Your task to perform on an android device: Show the shopping cart on bestbuy. Search for "razer huntsman" on bestbuy, select the first entry, add it to the cart, then select checkout. Image 0: 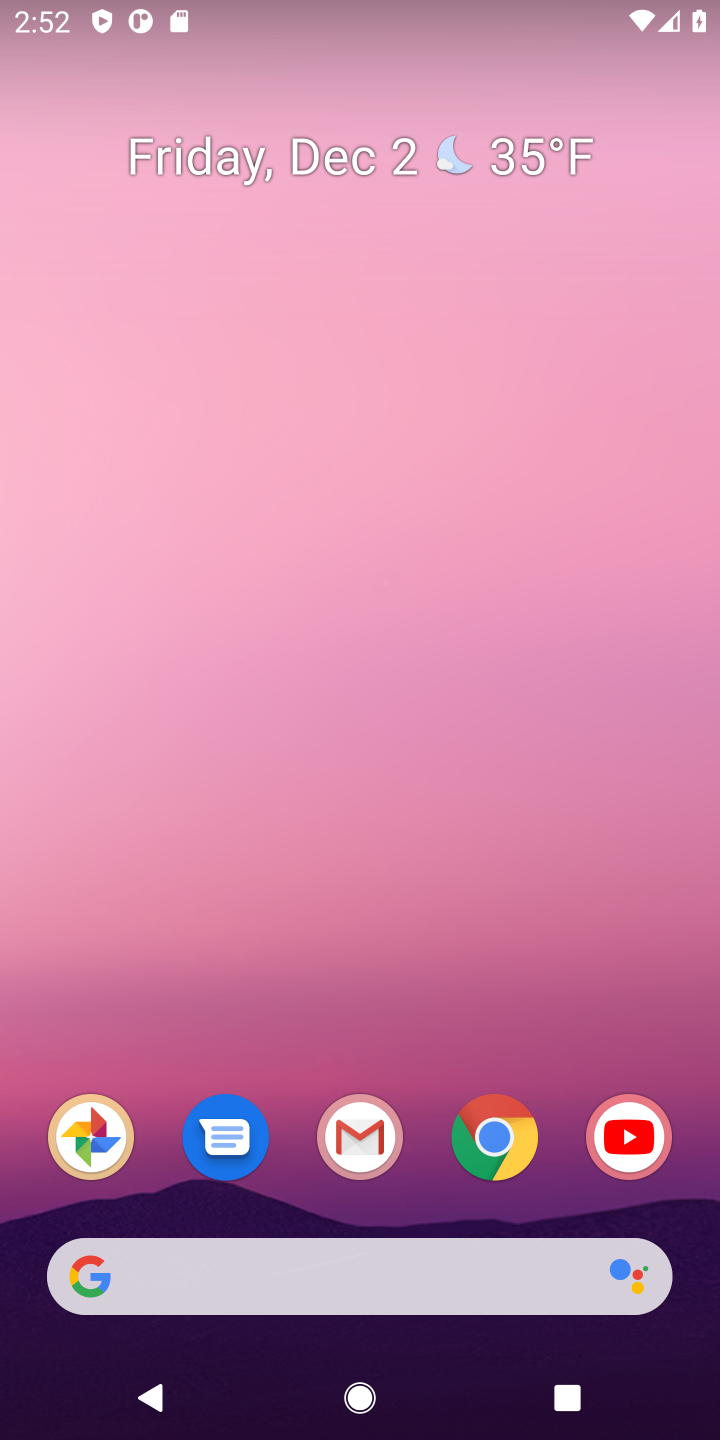
Step 0: drag from (354, 752) to (322, 500)
Your task to perform on an android device: Show the shopping cart on bestbuy. Search for "razer huntsman" on bestbuy, select the first entry, add it to the cart, then select checkout. Image 1: 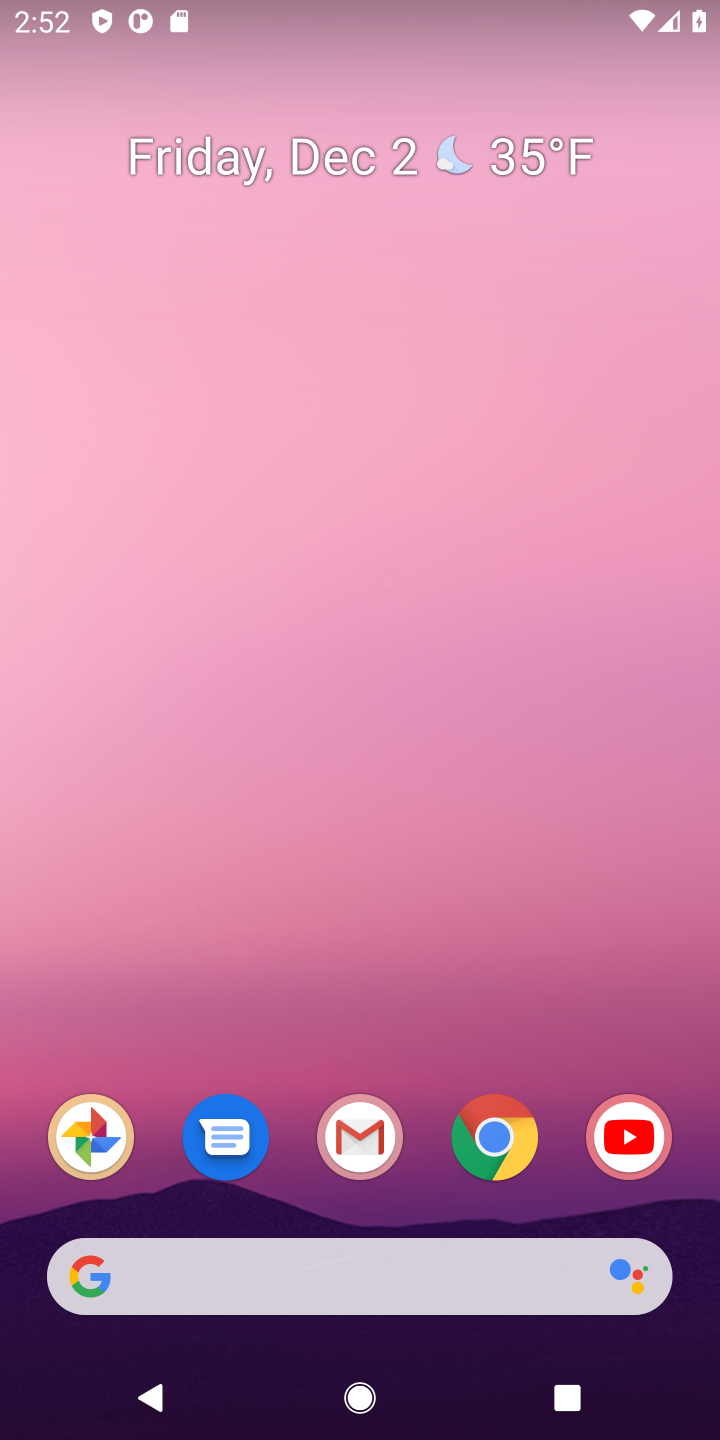
Step 1: drag from (228, 1116) to (218, 402)
Your task to perform on an android device: Show the shopping cart on bestbuy. Search for "razer huntsman" on bestbuy, select the first entry, add it to the cart, then select checkout. Image 2: 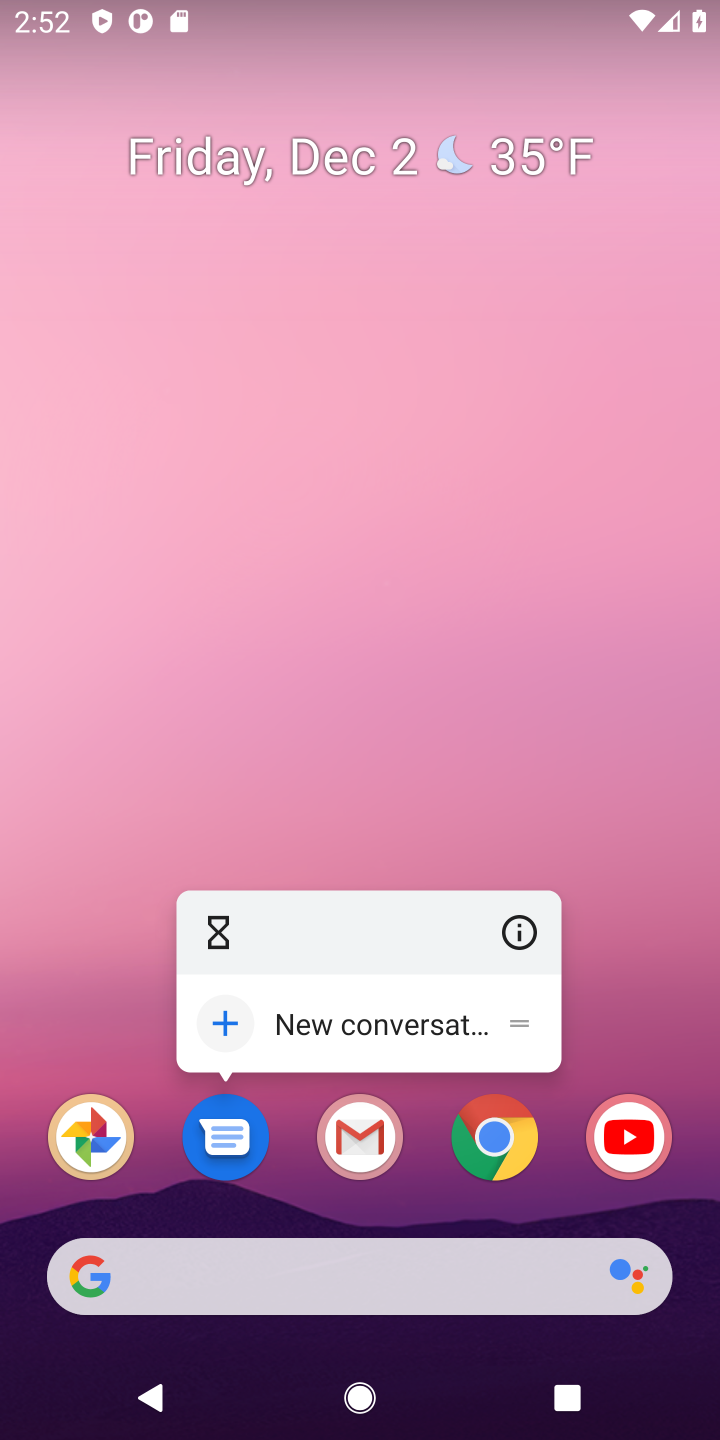
Step 2: drag from (151, 1238) to (158, 467)
Your task to perform on an android device: Show the shopping cart on bestbuy. Search for "razer huntsman" on bestbuy, select the first entry, add it to the cart, then select checkout. Image 3: 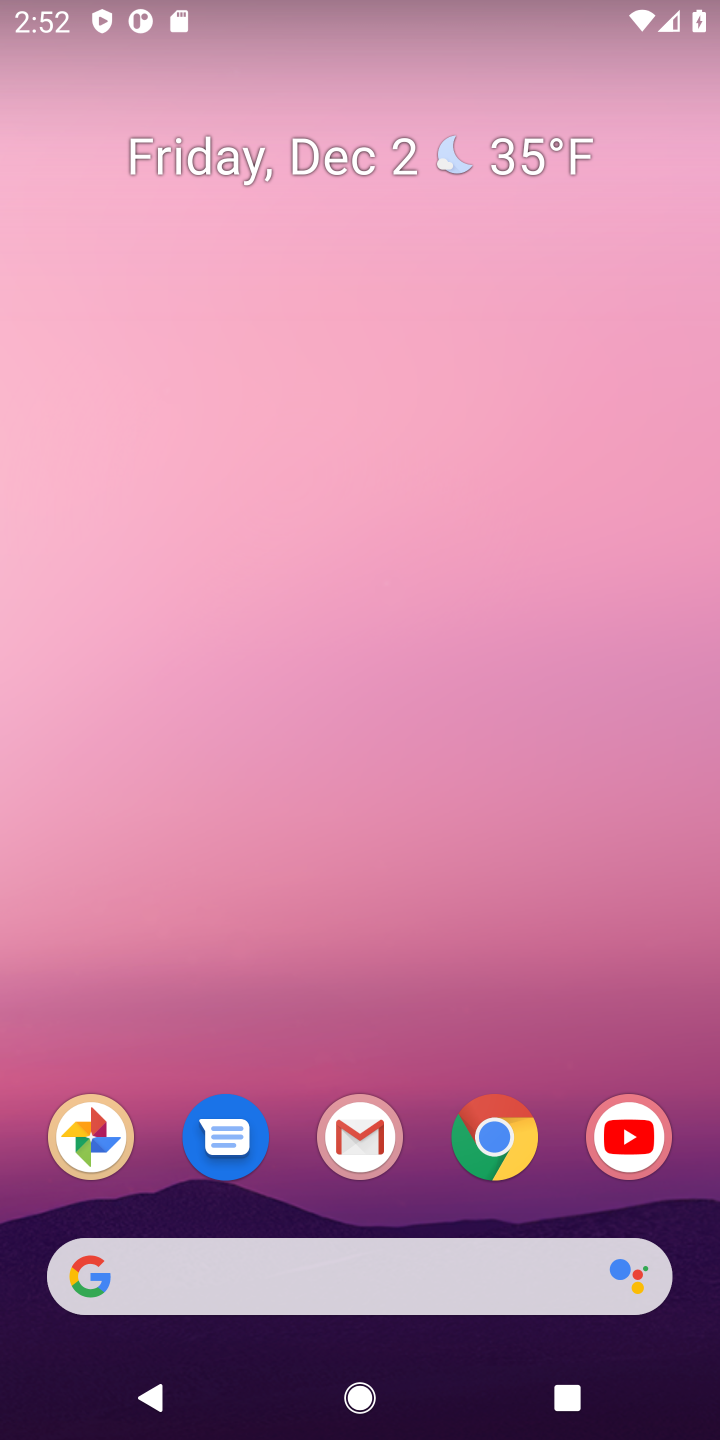
Step 3: drag from (332, 1169) to (284, 430)
Your task to perform on an android device: Show the shopping cart on bestbuy. Search for "razer huntsman" on bestbuy, select the first entry, add it to the cart, then select checkout. Image 4: 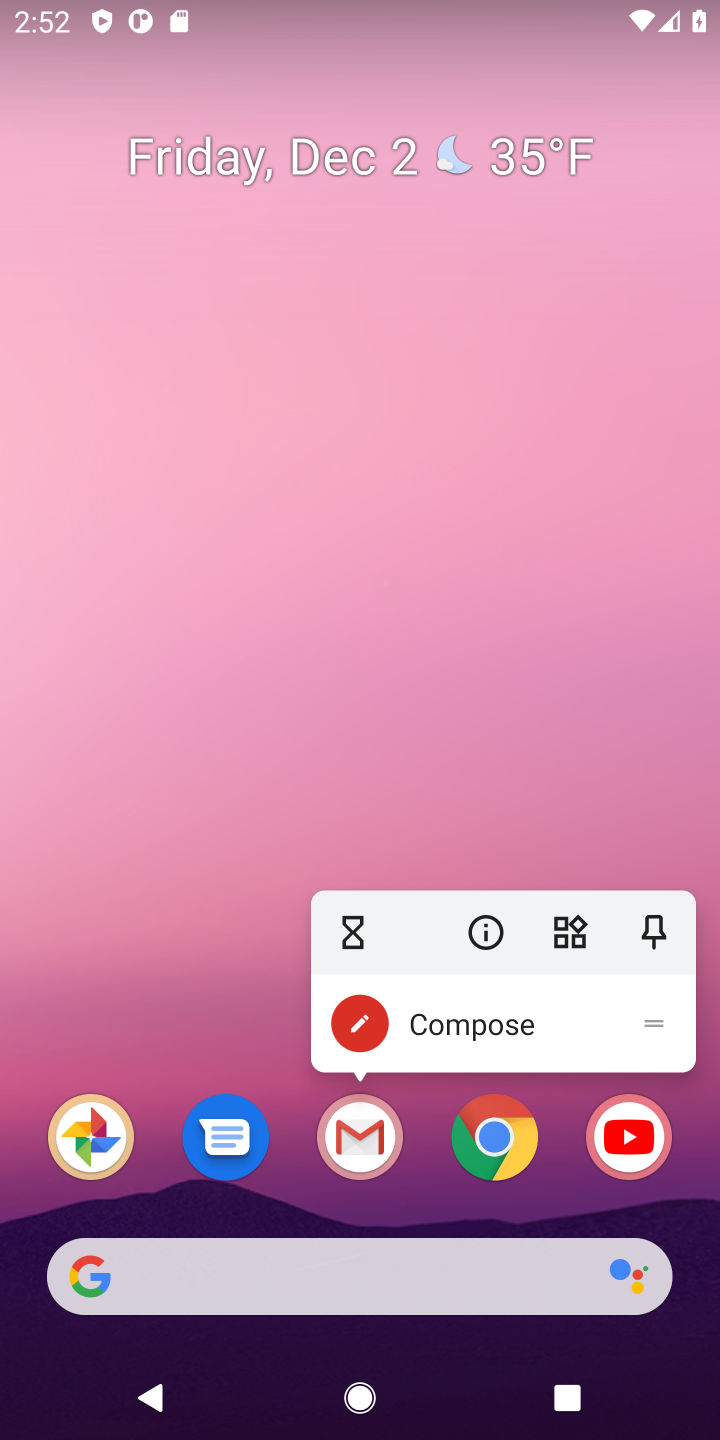
Step 4: drag from (209, 1271) to (216, 536)
Your task to perform on an android device: Show the shopping cart on bestbuy. Search for "razer huntsman" on bestbuy, select the first entry, add it to the cart, then select checkout. Image 5: 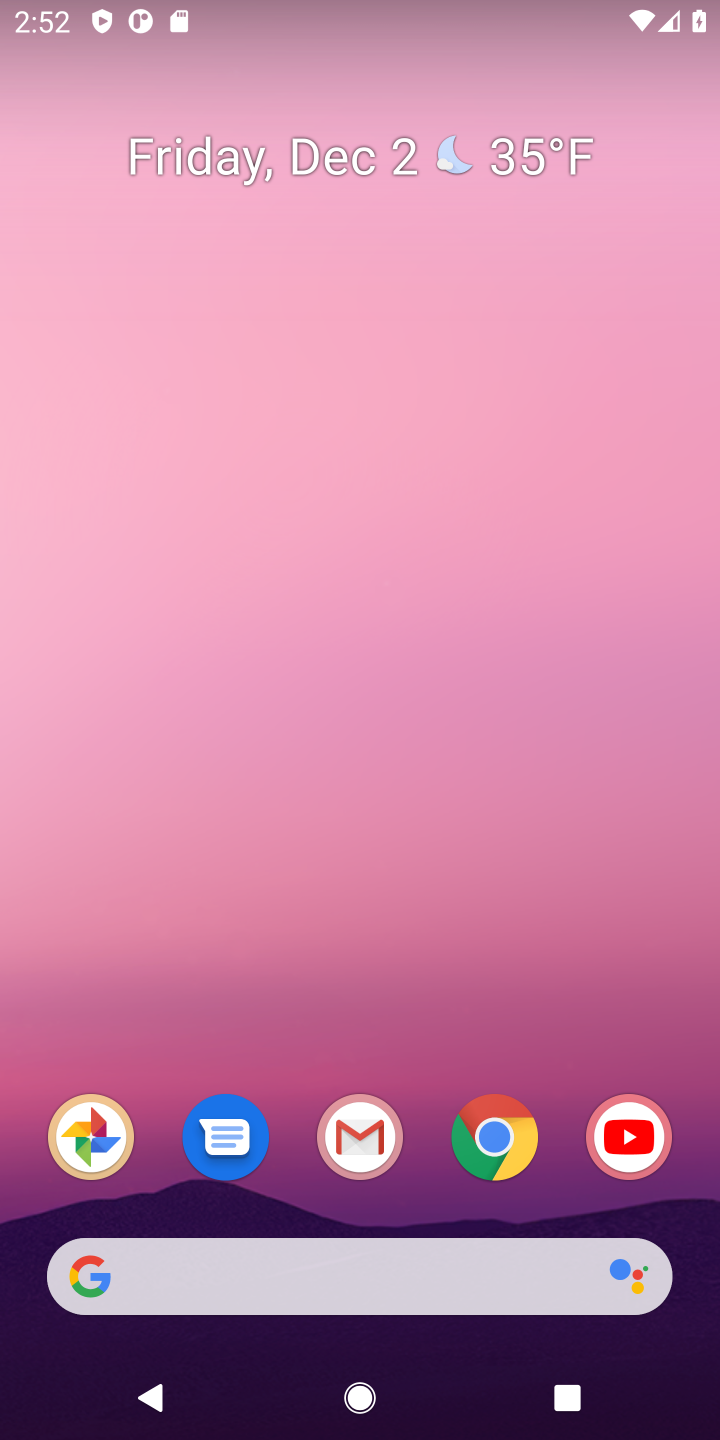
Step 5: drag from (412, 1251) to (417, 231)
Your task to perform on an android device: Show the shopping cart on bestbuy. Search for "razer huntsman" on bestbuy, select the first entry, add it to the cart, then select checkout. Image 6: 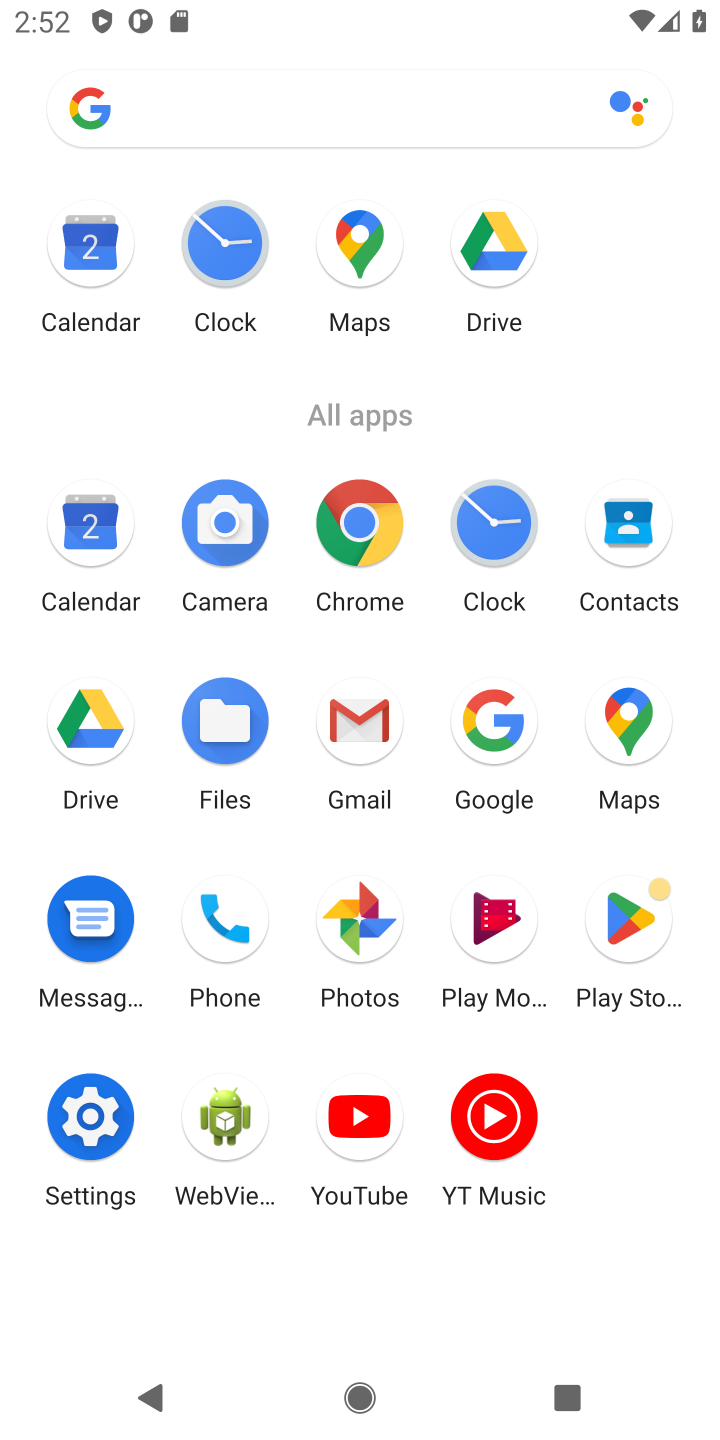
Step 6: click (491, 731)
Your task to perform on an android device: Show the shopping cart on bestbuy. Search for "razer huntsman" on bestbuy, select the first entry, add it to the cart, then select checkout. Image 7: 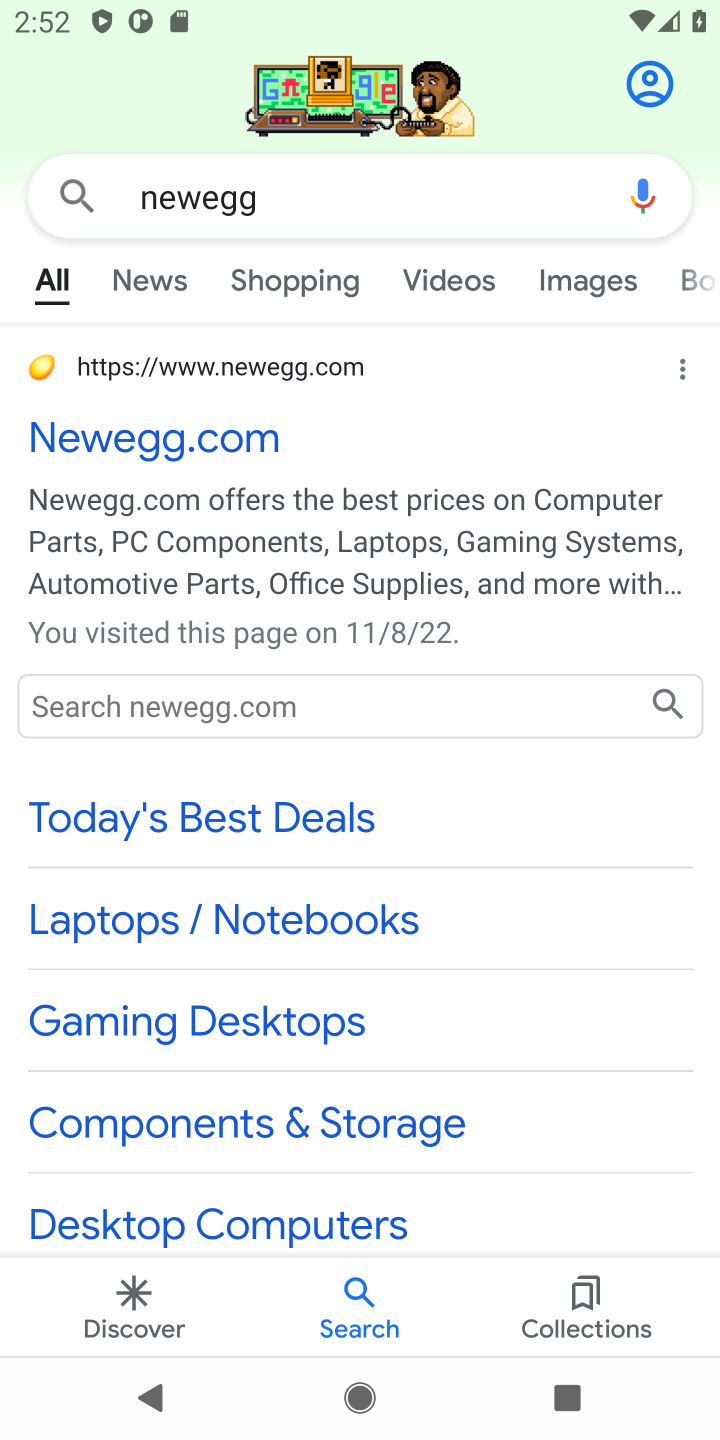
Step 7: click (241, 184)
Your task to perform on an android device: Show the shopping cart on bestbuy. Search for "razer huntsman" on bestbuy, select the first entry, add it to the cart, then select checkout. Image 8: 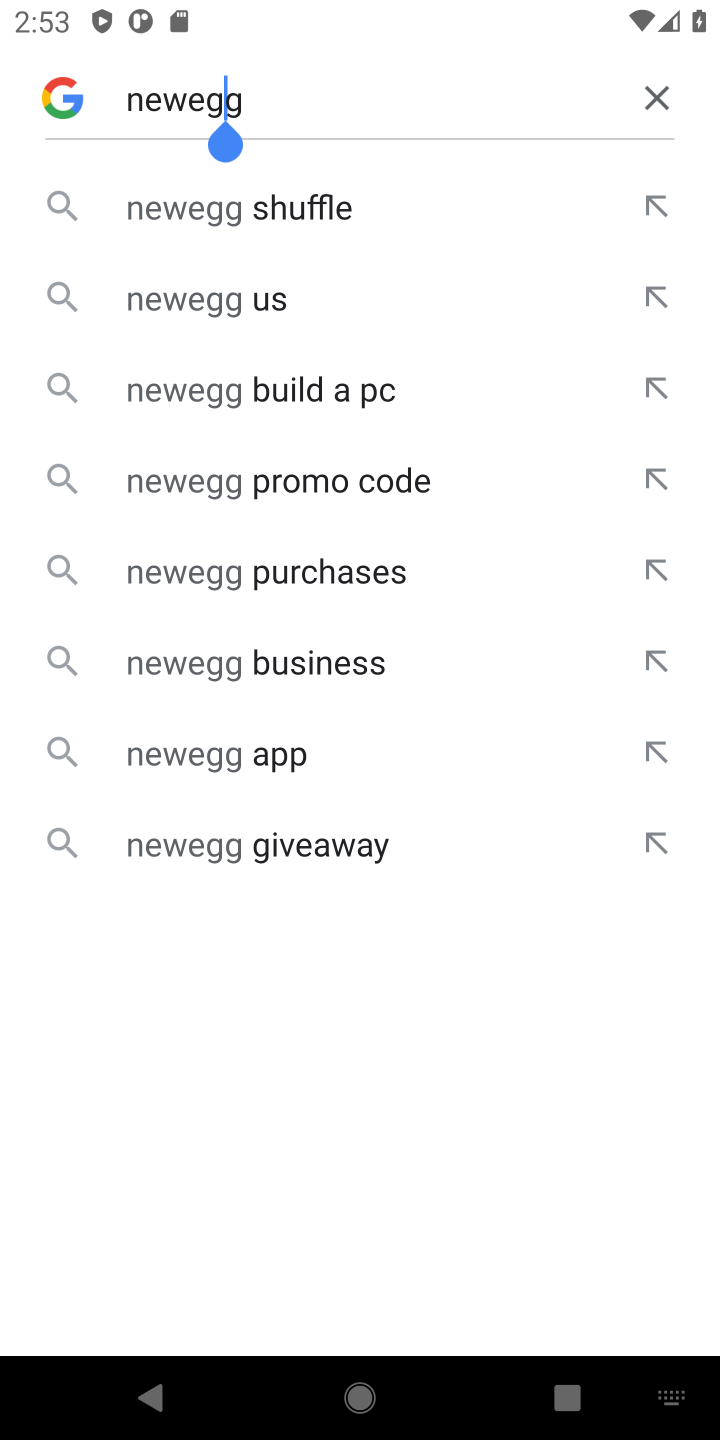
Step 8: click (661, 92)
Your task to perform on an android device: Show the shopping cart on bestbuy. Search for "razer huntsman" on bestbuy, select the first entry, add it to the cart, then select checkout. Image 9: 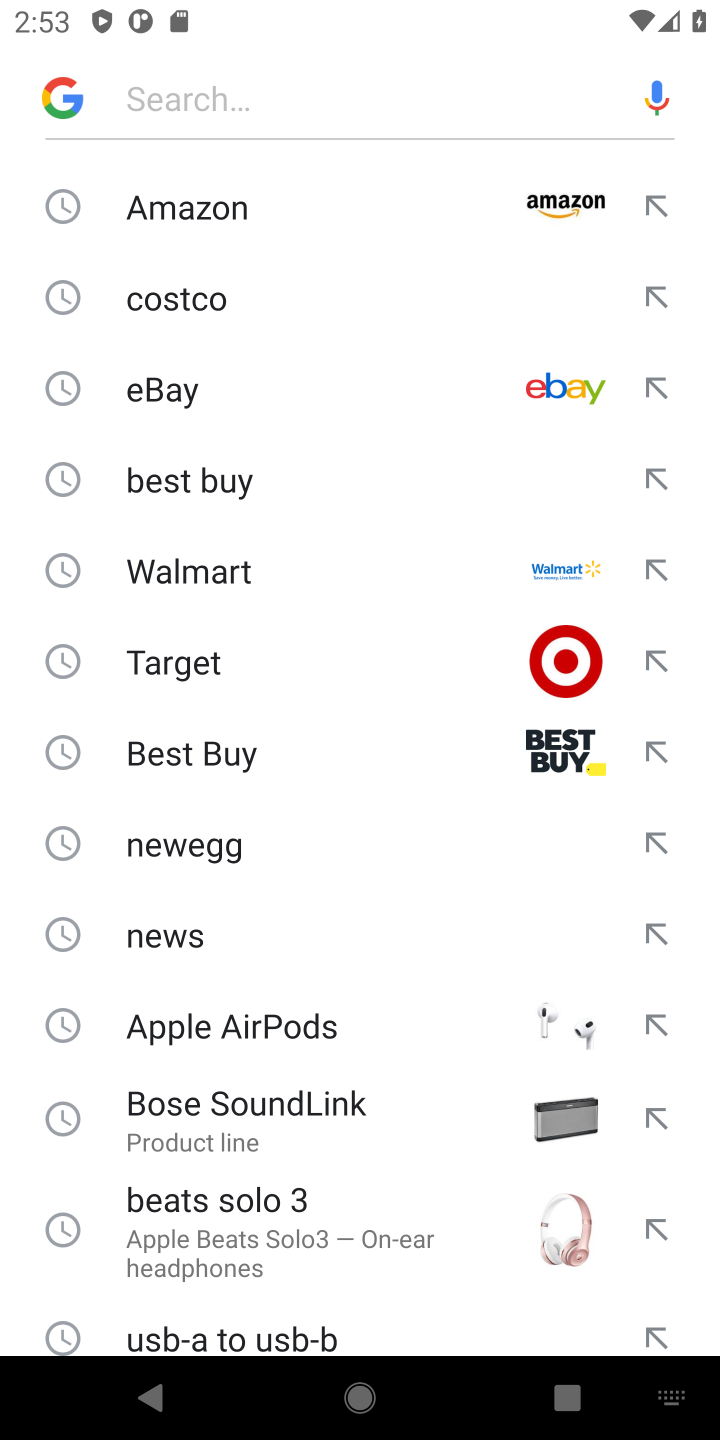
Step 9: click (142, 750)
Your task to perform on an android device: Show the shopping cart on bestbuy. Search for "razer huntsman" on bestbuy, select the first entry, add it to the cart, then select checkout. Image 10: 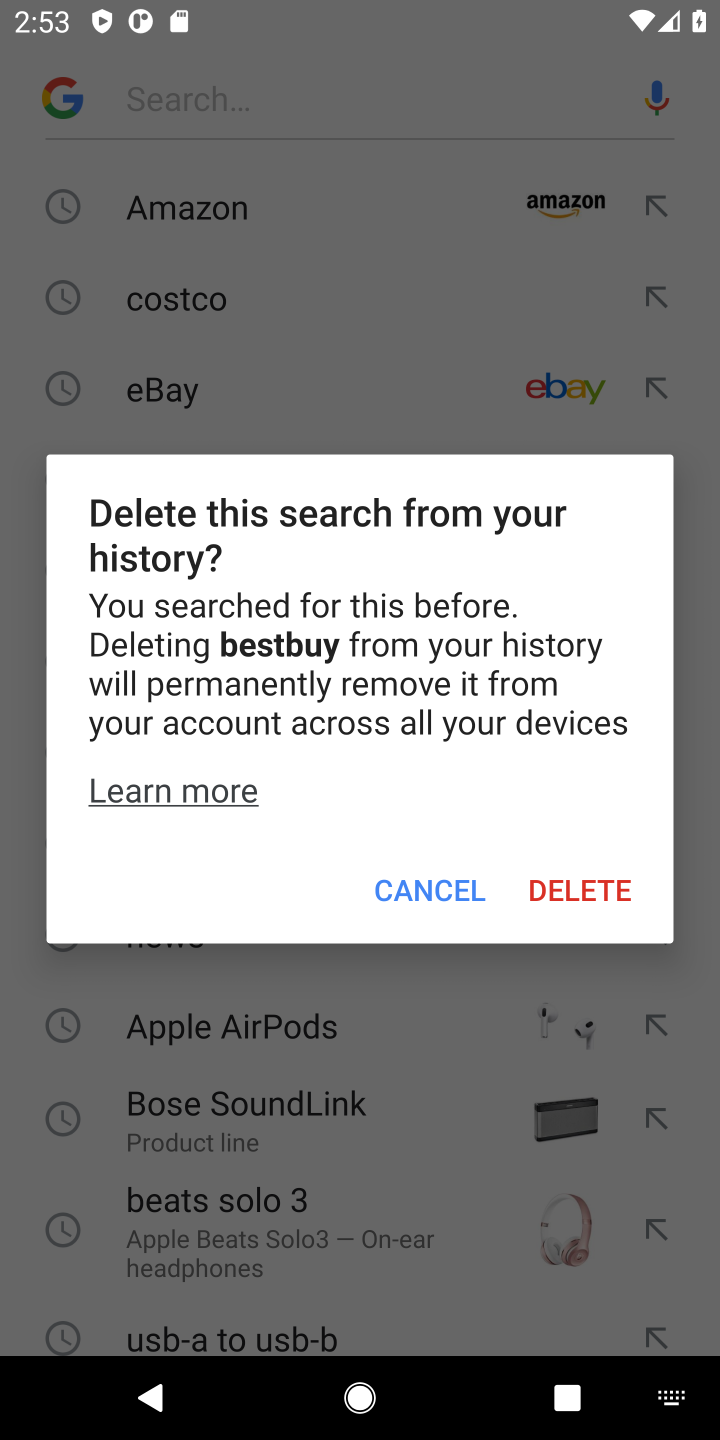
Step 10: click (397, 884)
Your task to perform on an android device: Show the shopping cart on bestbuy. Search for "razer huntsman" on bestbuy, select the first entry, add it to the cart, then select checkout. Image 11: 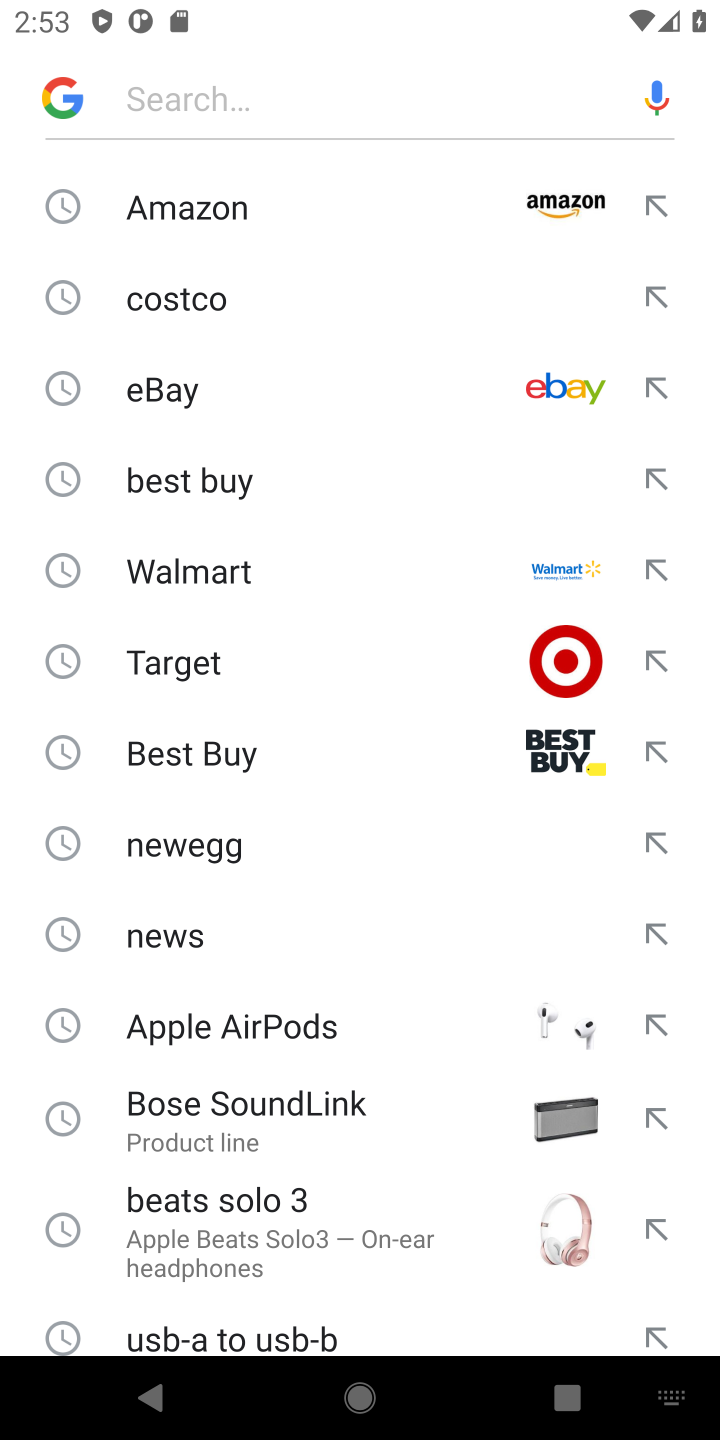
Step 11: click (186, 749)
Your task to perform on an android device: Show the shopping cart on bestbuy. Search for "razer huntsman" on bestbuy, select the first entry, add it to the cart, then select checkout. Image 12: 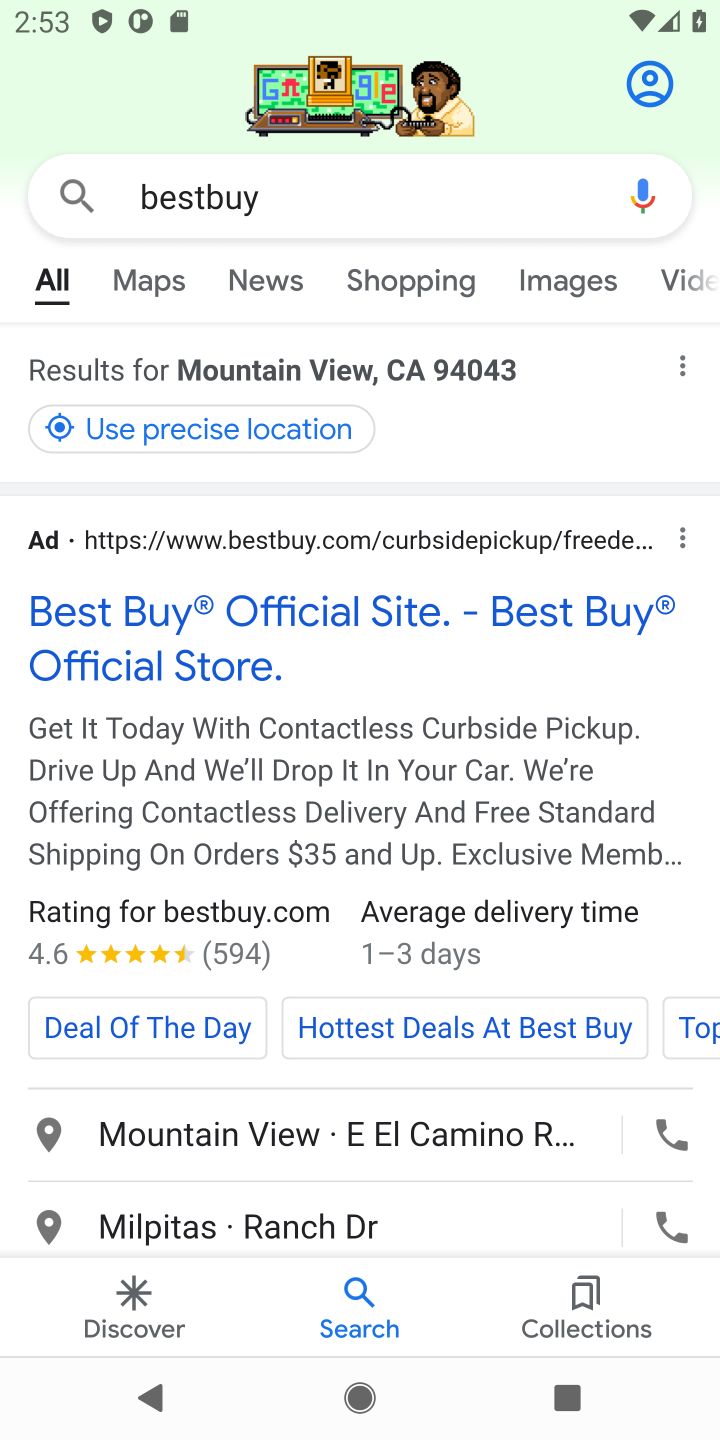
Step 12: click (215, 625)
Your task to perform on an android device: Show the shopping cart on bestbuy. Search for "razer huntsman" on bestbuy, select the first entry, add it to the cart, then select checkout. Image 13: 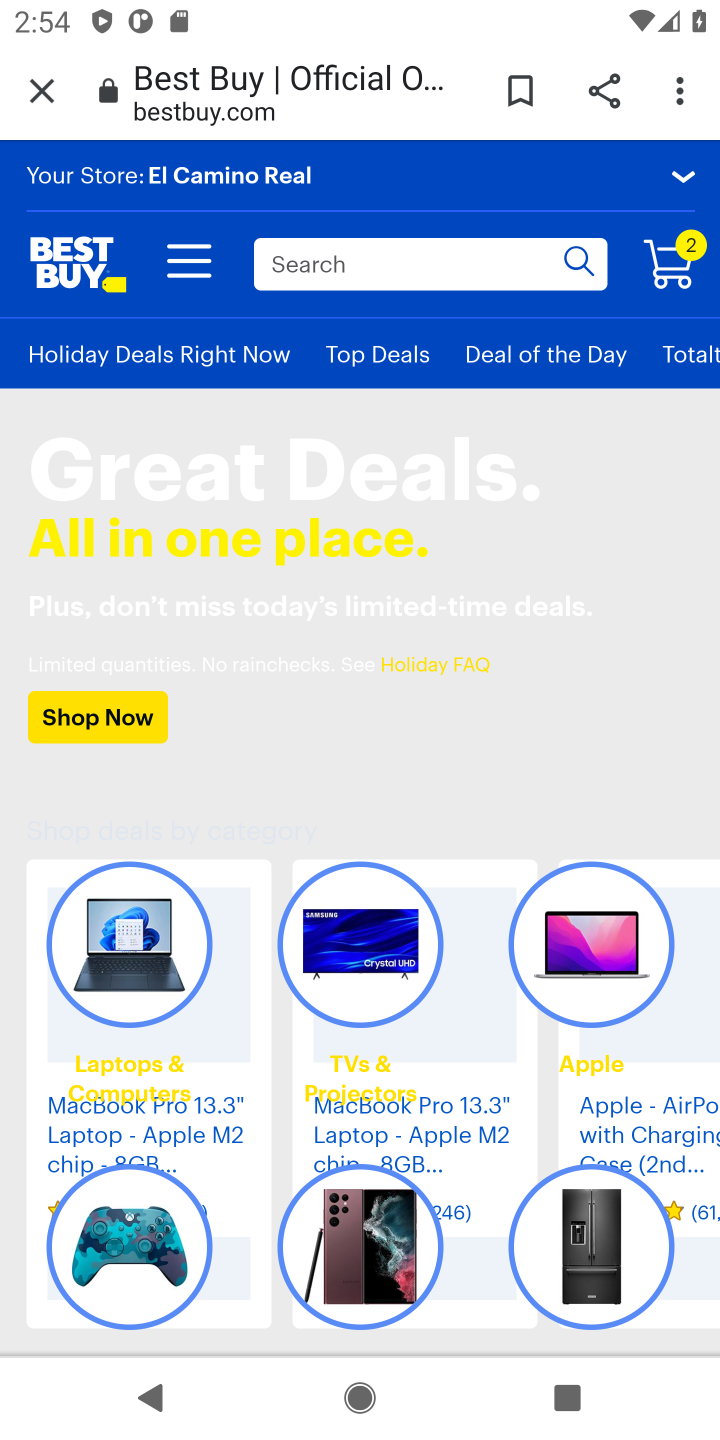
Step 13: click (303, 256)
Your task to perform on an android device: Show the shopping cart on bestbuy. Search for "razer huntsman" on bestbuy, select the first entry, add it to the cart, then select checkout. Image 14: 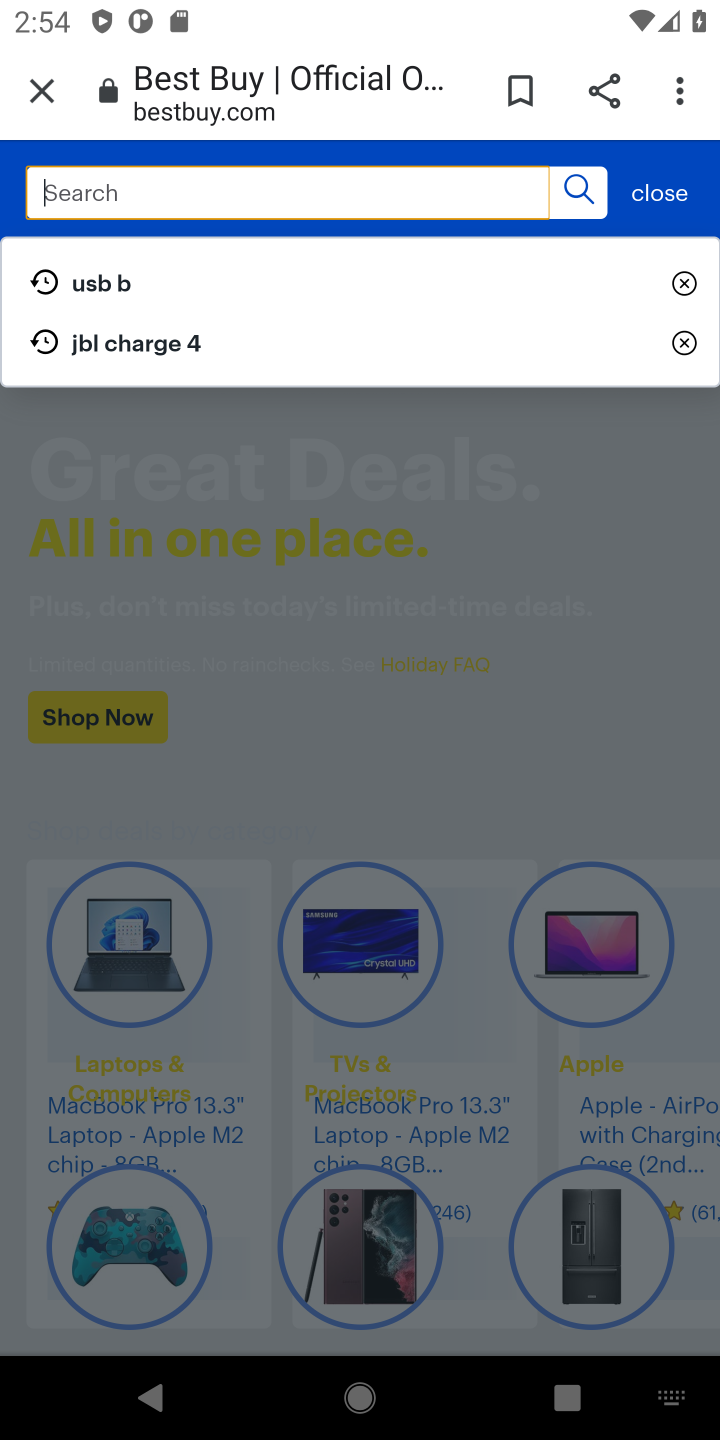
Step 14: type "razer huntsman"
Your task to perform on an android device: Show the shopping cart on bestbuy. Search for "razer huntsman" on bestbuy, select the first entry, add it to the cart, then select checkout. Image 15: 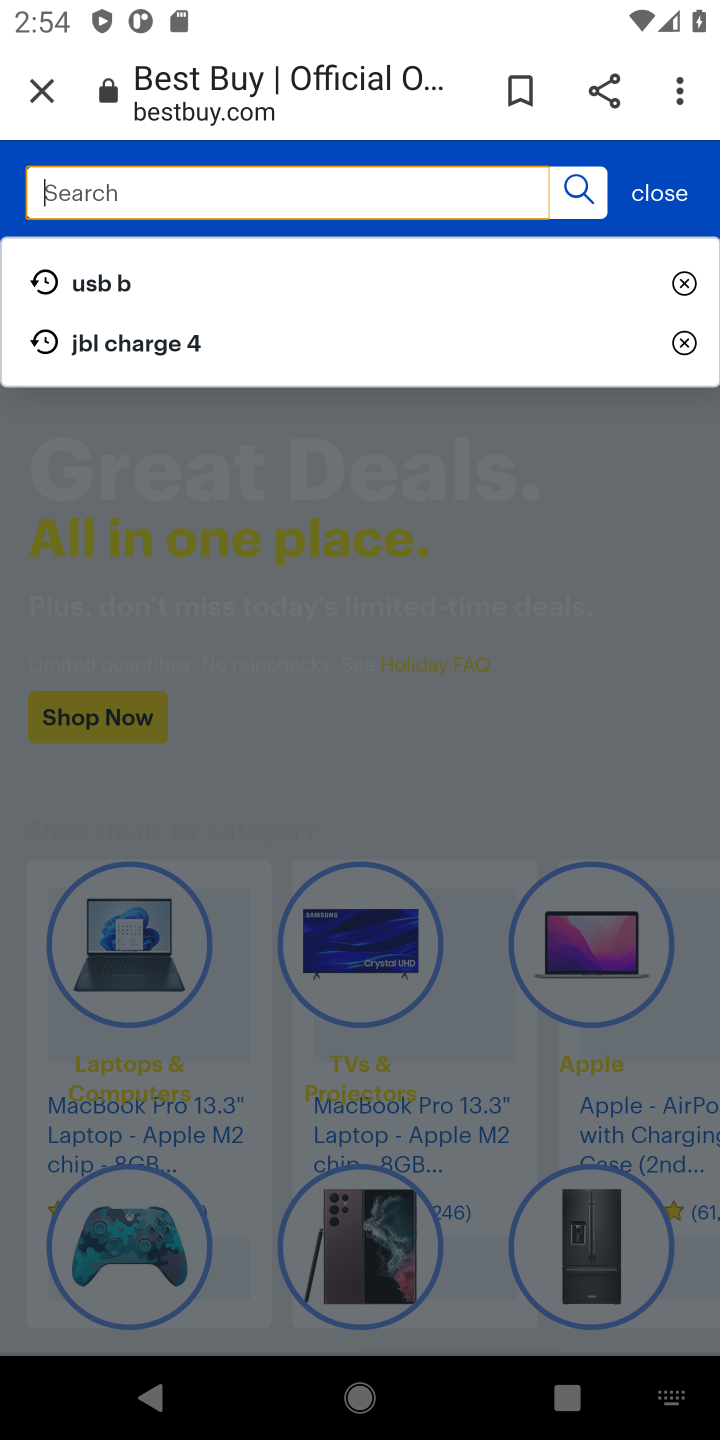
Step 15: click (584, 181)
Your task to perform on an android device: Show the shopping cart on bestbuy. Search for "razer huntsman" on bestbuy, select the first entry, add it to the cart, then select checkout. Image 16: 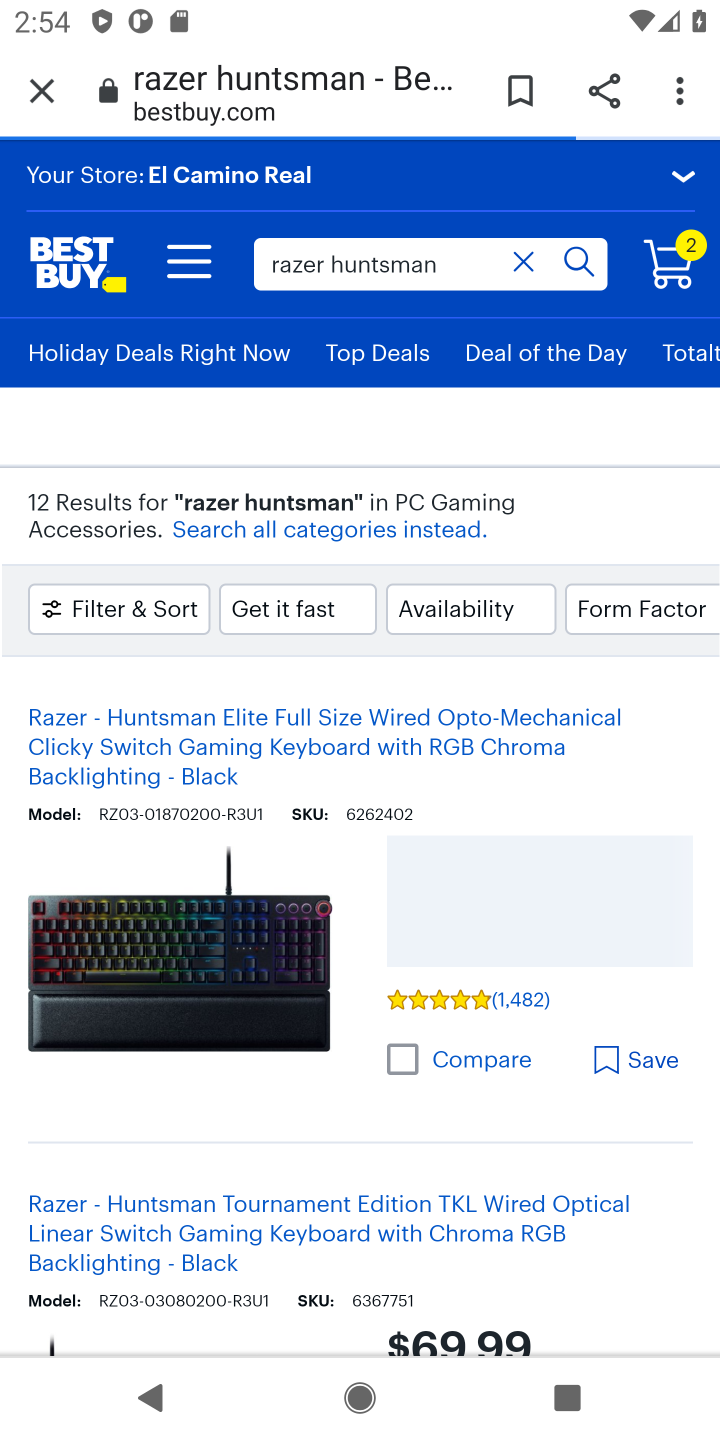
Step 16: drag from (430, 1258) to (324, 681)
Your task to perform on an android device: Show the shopping cart on bestbuy. Search for "razer huntsman" on bestbuy, select the first entry, add it to the cart, then select checkout. Image 17: 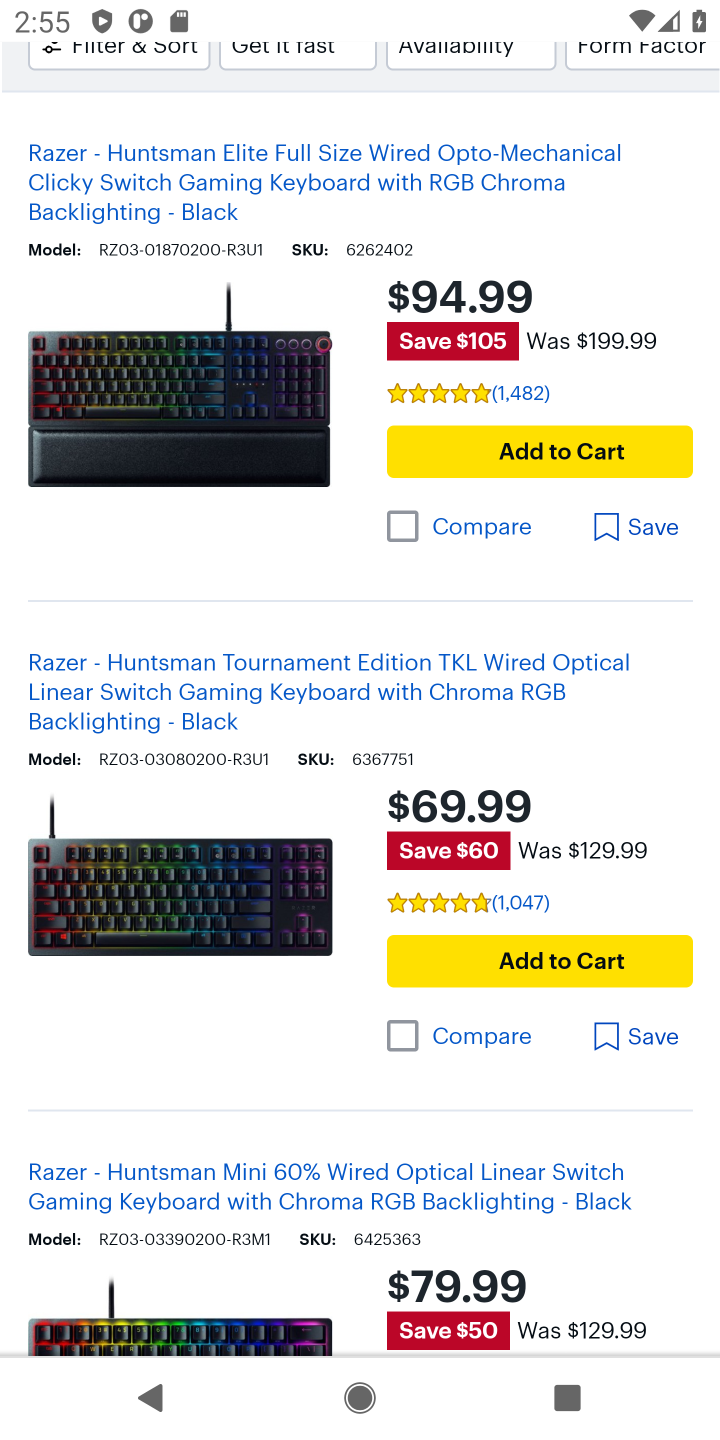
Step 17: click (523, 541)
Your task to perform on an android device: Show the shopping cart on bestbuy. Search for "razer huntsman" on bestbuy, select the first entry, add it to the cart, then select checkout. Image 18: 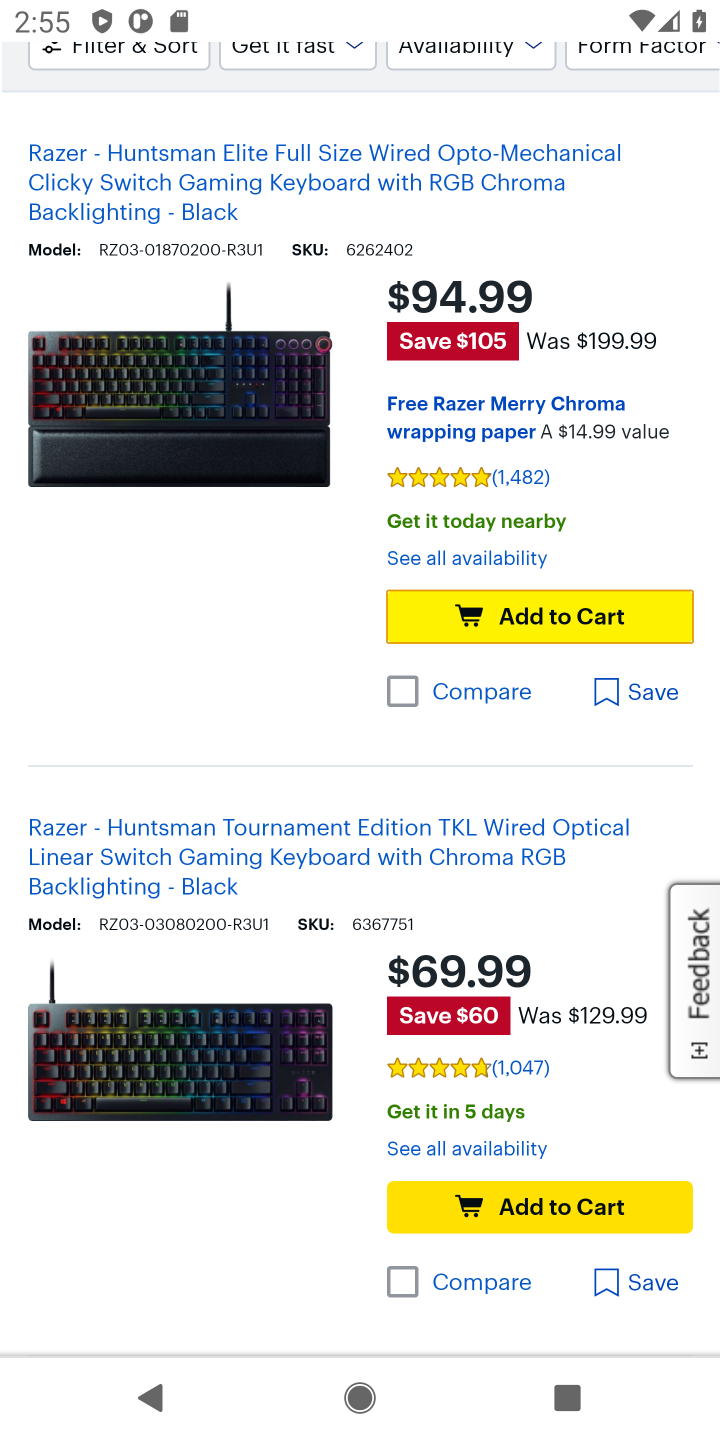
Step 18: click (595, 628)
Your task to perform on an android device: Show the shopping cart on bestbuy. Search for "razer huntsman" on bestbuy, select the first entry, add it to the cart, then select checkout. Image 19: 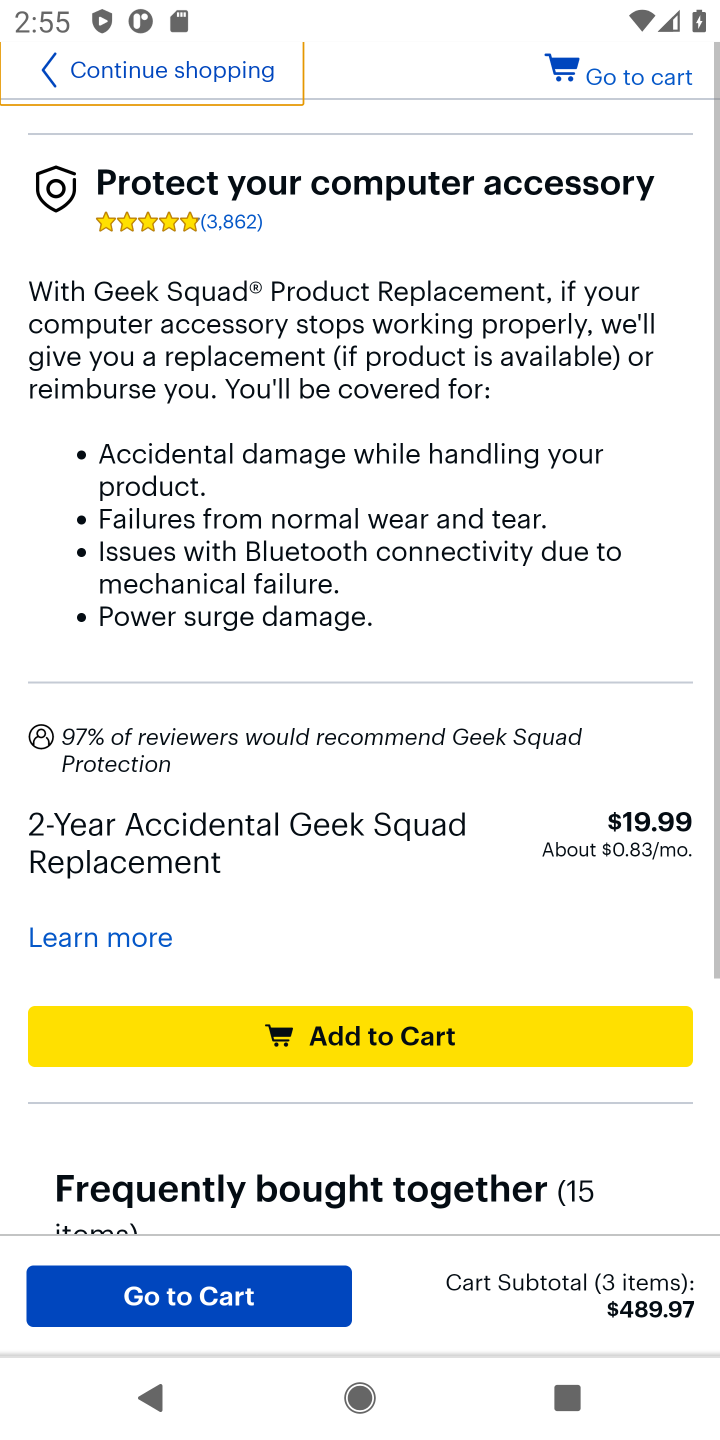
Step 19: click (196, 1289)
Your task to perform on an android device: Show the shopping cart on bestbuy. Search for "razer huntsman" on bestbuy, select the first entry, add it to the cart, then select checkout. Image 20: 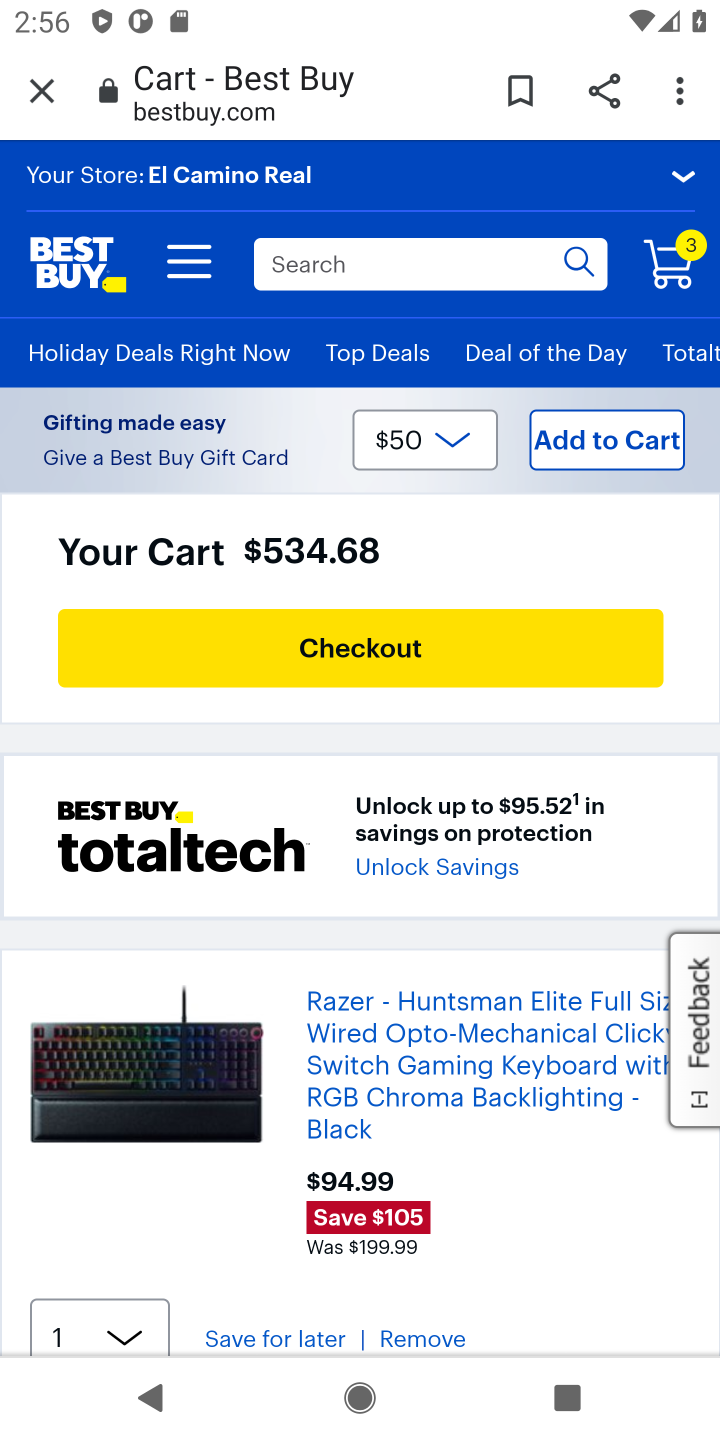
Step 20: task complete